Your task to perform on an android device: Go to battery settings Image 0: 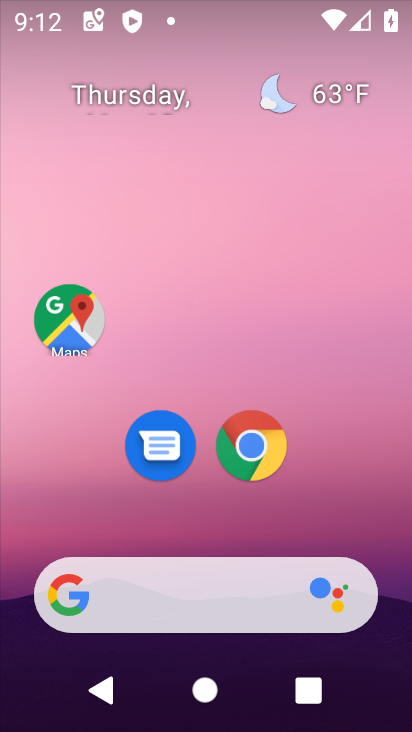
Step 0: drag from (201, 521) to (243, 64)
Your task to perform on an android device: Go to battery settings Image 1: 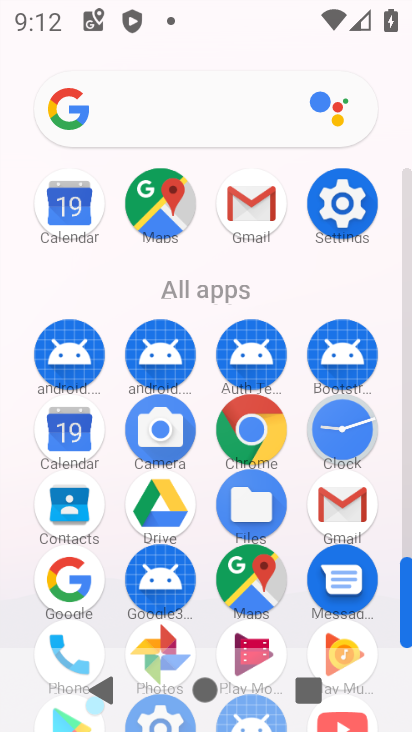
Step 1: click (362, 225)
Your task to perform on an android device: Go to battery settings Image 2: 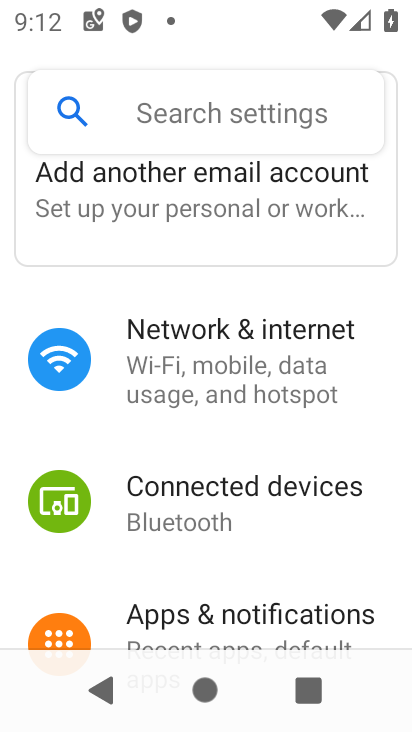
Step 2: drag from (263, 522) to (291, 311)
Your task to perform on an android device: Go to battery settings Image 3: 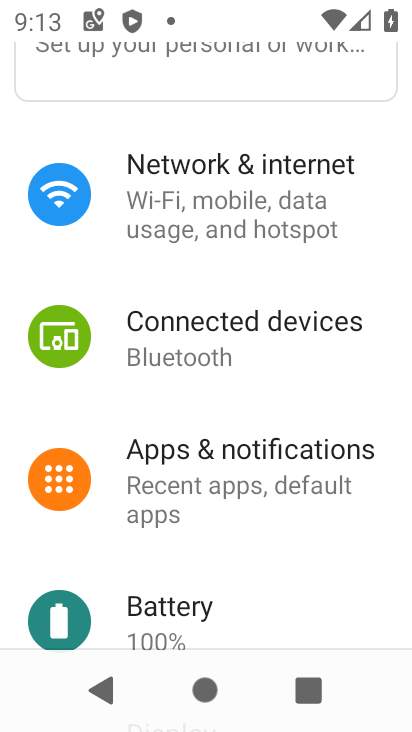
Step 3: click (173, 615)
Your task to perform on an android device: Go to battery settings Image 4: 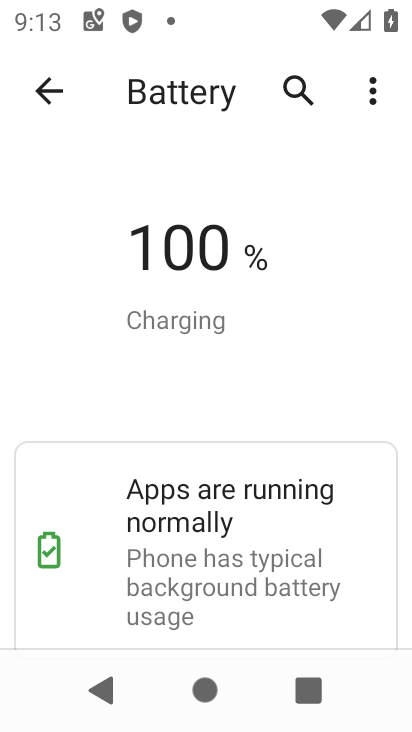
Step 4: task complete